Your task to perform on an android device: check data usage Image 0: 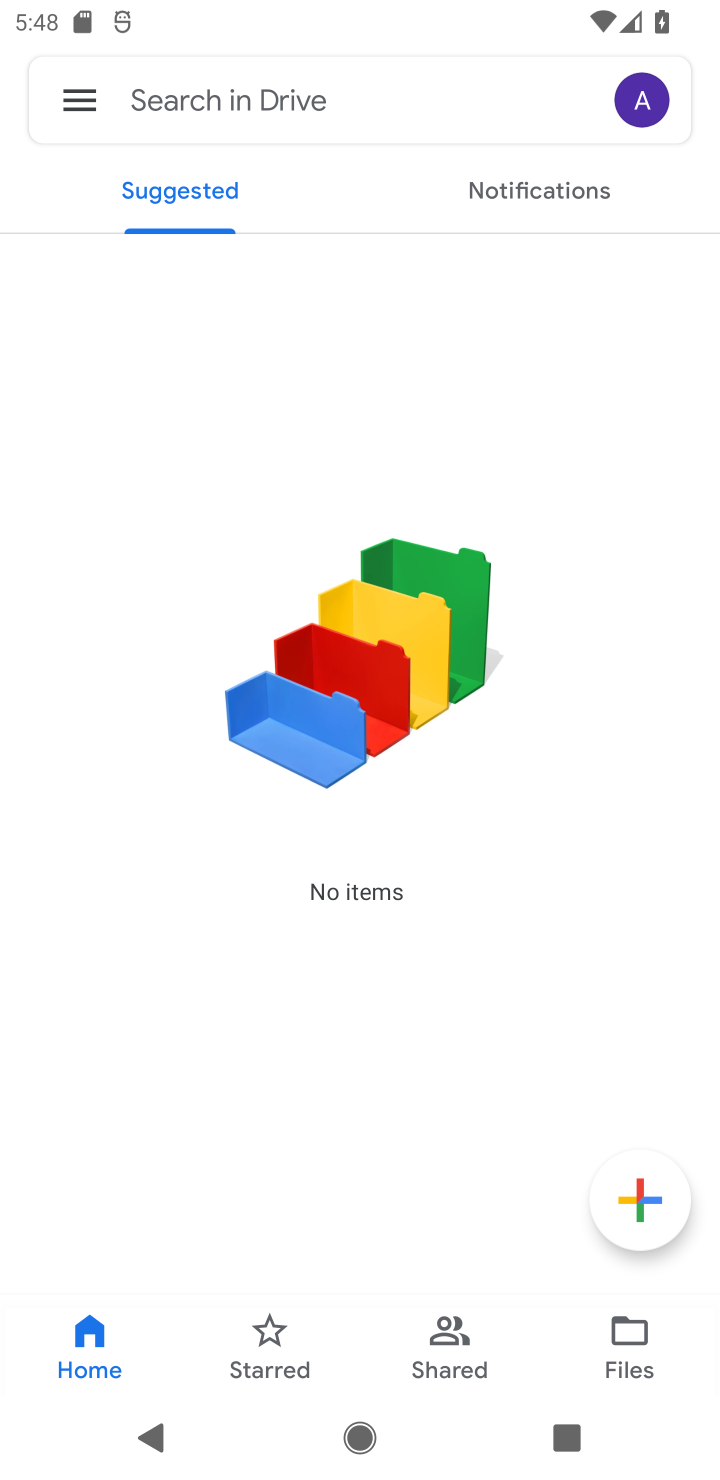
Step 0: task complete